Your task to perform on an android device: clear history in the chrome app Image 0: 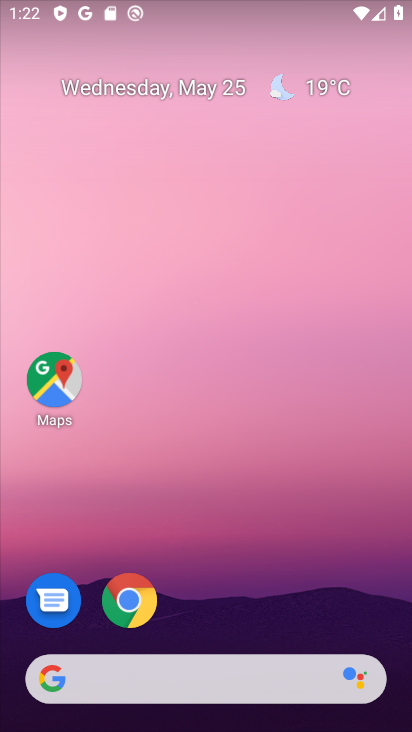
Step 0: click (144, 620)
Your task to perform on an android device: clear history in the chrome app Image 1: 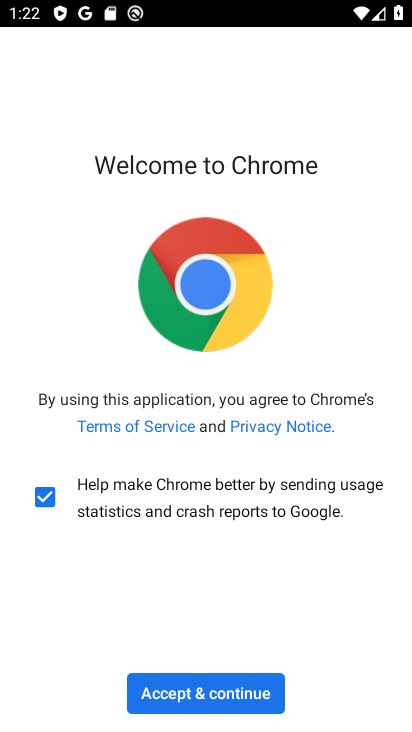
Step 1: click (208, 688)
Your task to perform on an android device: clear history in the chrome app Image 2: 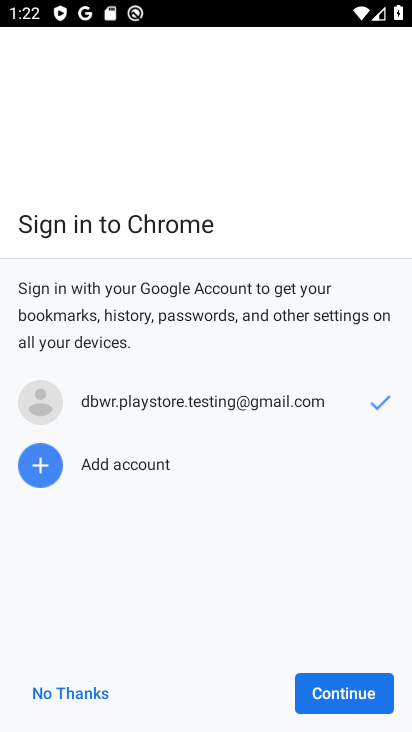
Step 2: click (329, 688)
Your task to perform on an android device: clear history in the chrome app Image 3: 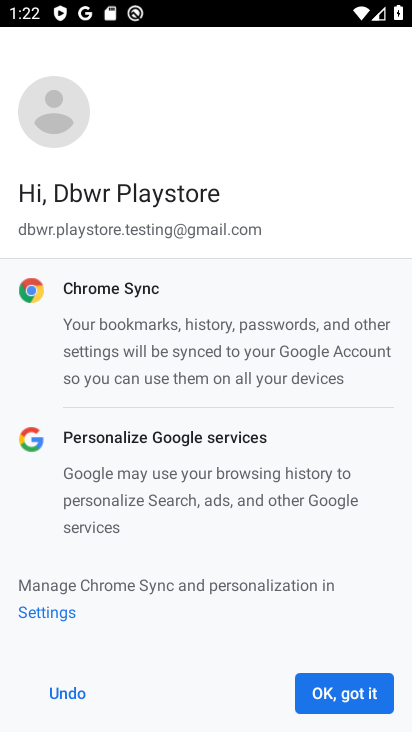
Step 3: click (366, 696)
Your task to perform on an android device: clear history in the chrome app Image 4: 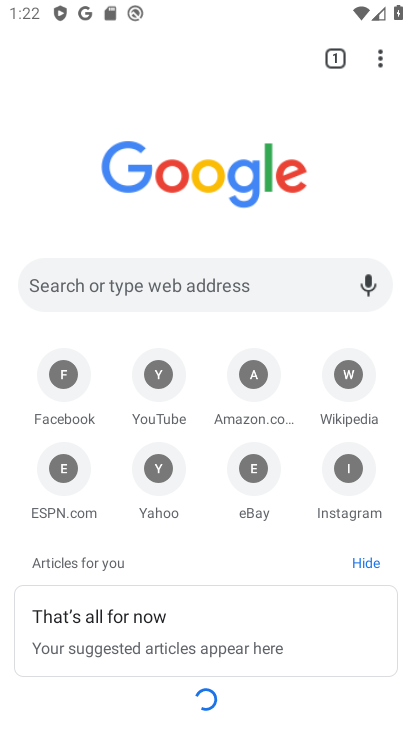
Step 4: task complete